Your task to perform on an android device: Open CNN.com Image 0: 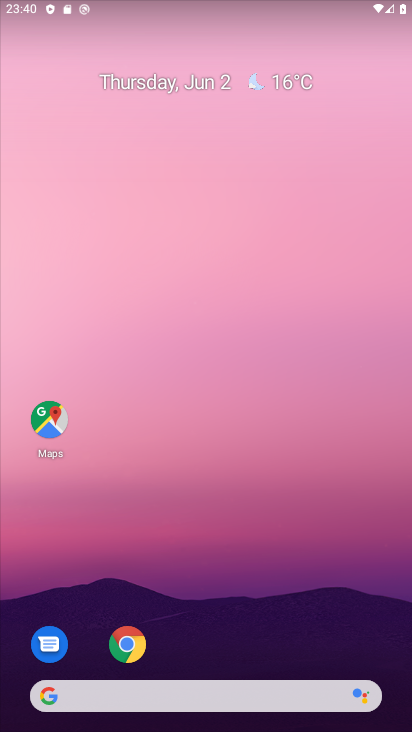
Step 0: click (129, 636)
Your task to perform on an android device: Open CNN.com Image 1: 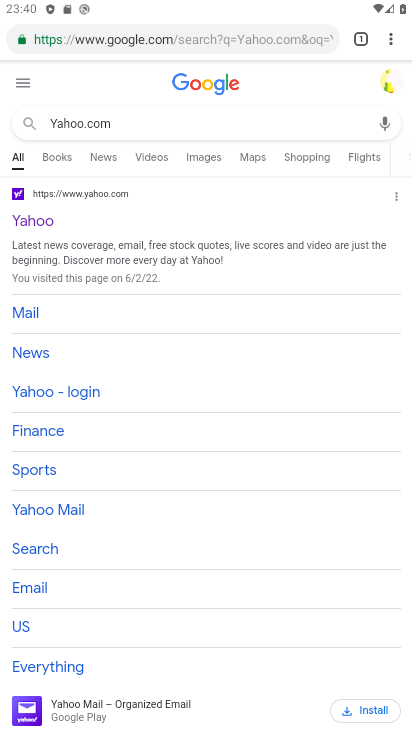
Step 1: type "CNN.com"
Your task to perform on an android device: Open CNN.com Image 2: 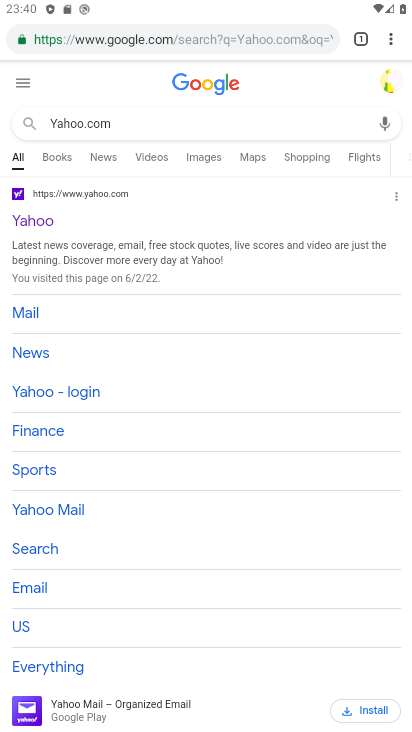
Step 2: click (125, 37)
Your task to perform on an android device: Open CNN.com Image 3: 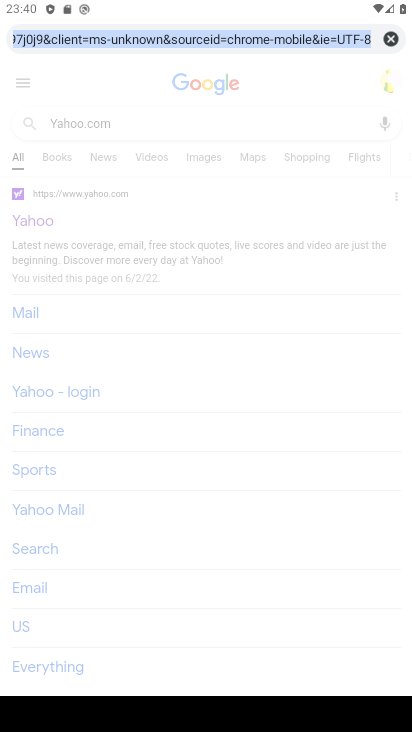
Step 3: type "CNN.com"
Your task to perform on an android device: Open CNN.com Image 4: 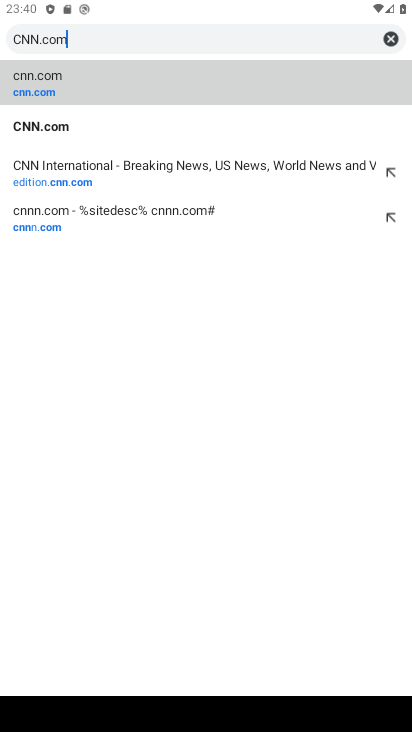
Step 4: click (43, 130)
Your task to perform on an android device: Open CNN.com Image 5: 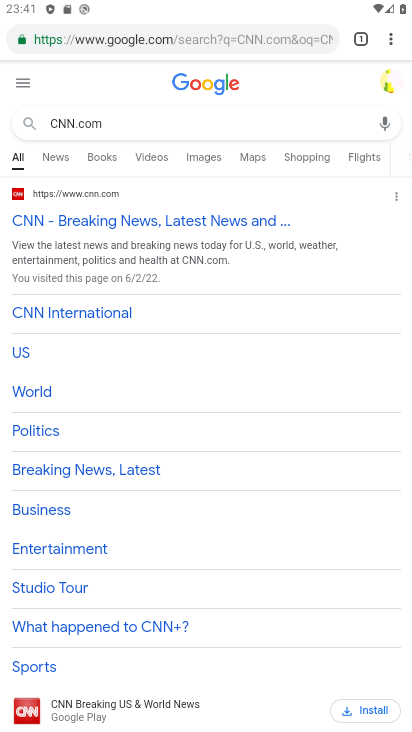
Step 5: task complete